Your task to perform on an android device: open app "Adobe Acrobat Reader" (install if not already installed) Image 0: 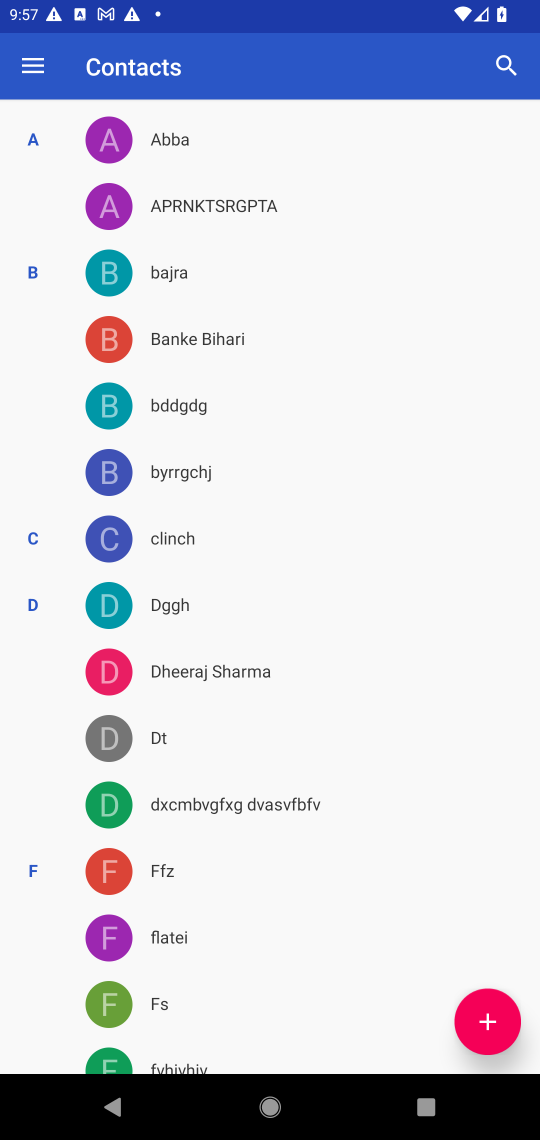
Step 0: press home button
Your task to perform on an android device: open app "Adobe Acrobat Reader" (install if not already installed) Image 1: 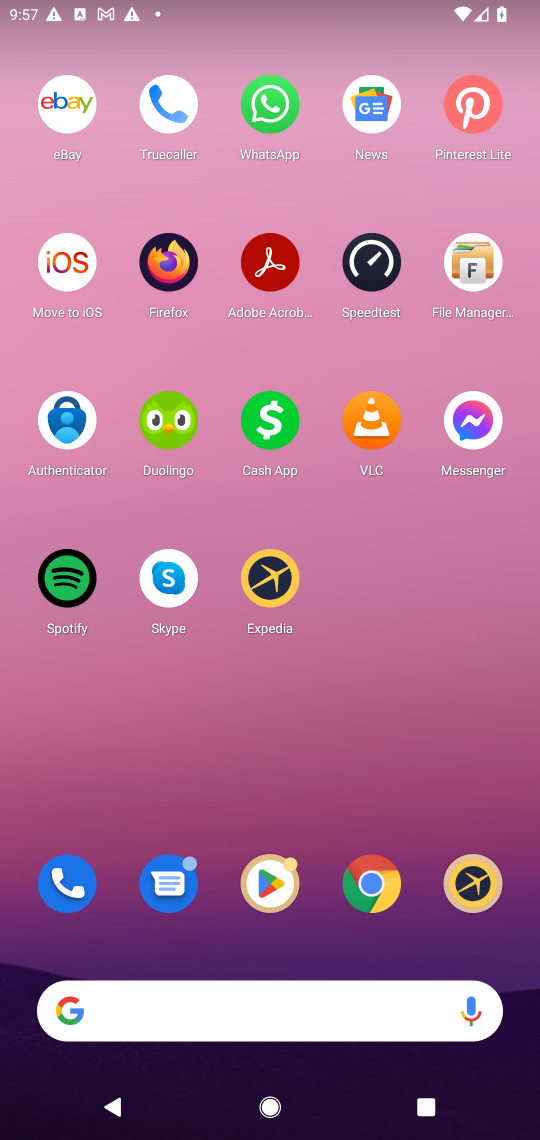
Step 1: click (258, 876)
Your task to perform on an android device: open app "Adobe Acrobat Reader" (install if not already installed) Image 2: 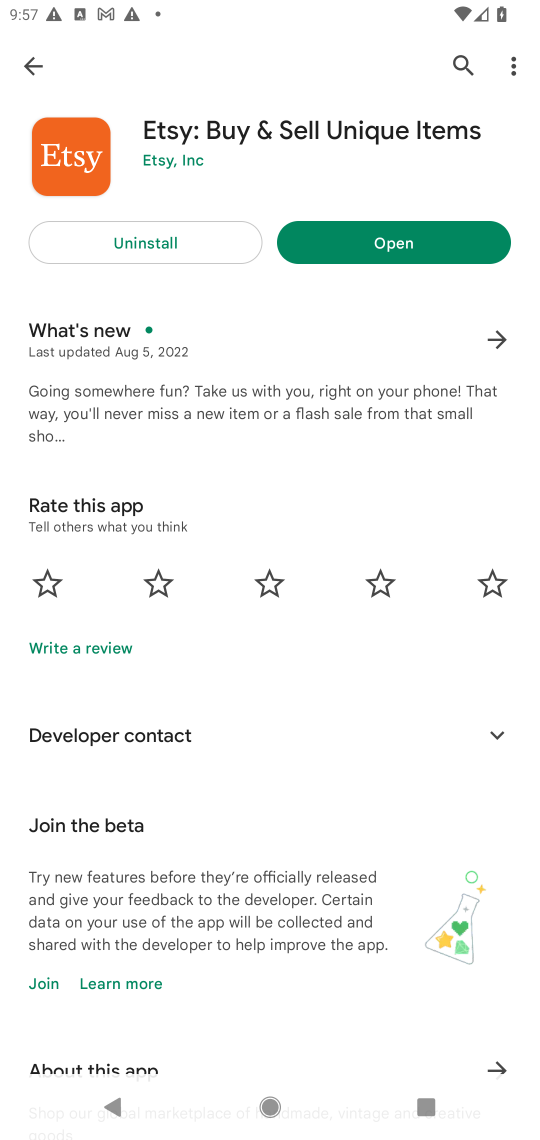
Step 2: click (461, 57)
Your task to perform on an android device: open app "Adobe Acrobat Reader" (install if not already installed) Image 3: 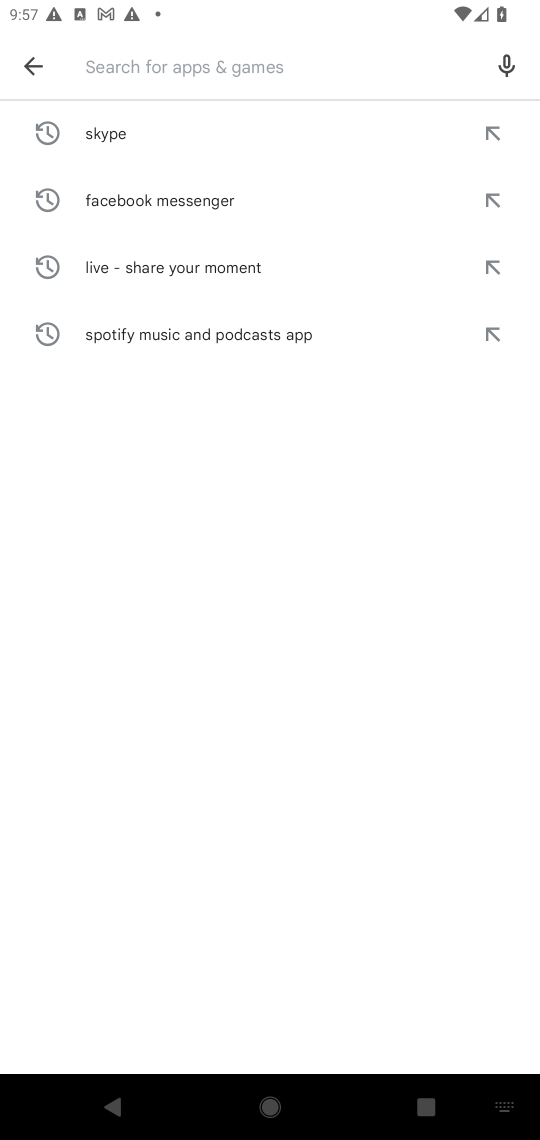
Step 3: type "Adobe Acrobat Reader"
Your task to perform on an android device: open app "Adobe Acrobat Reader" (install if not already installed) Image 4: 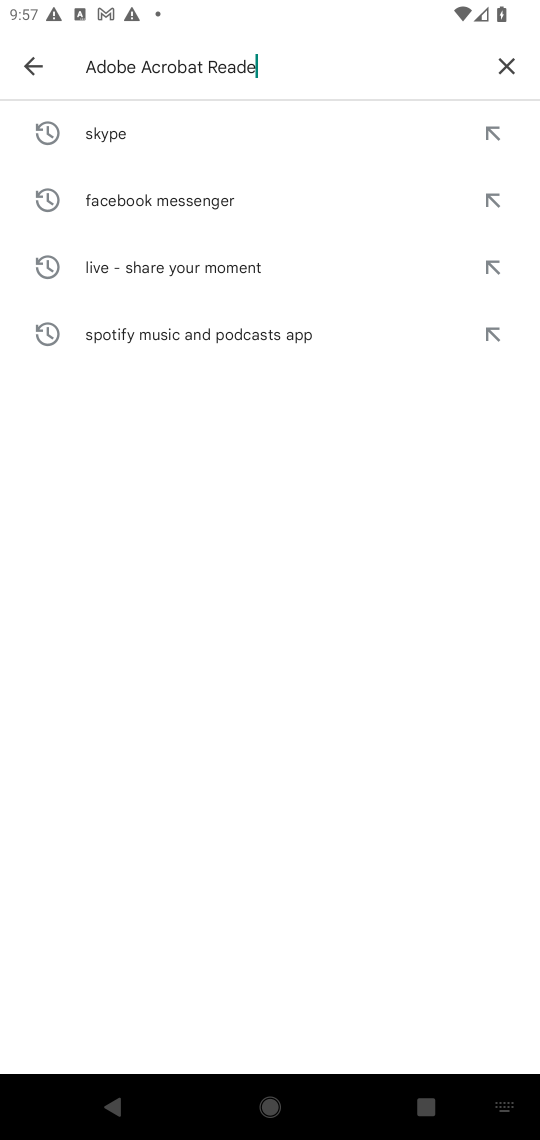
Step 4: type ""
Your task to perform on an android device: open app "Adobe Acrobat Reader" (install if not already installed) Image 5: 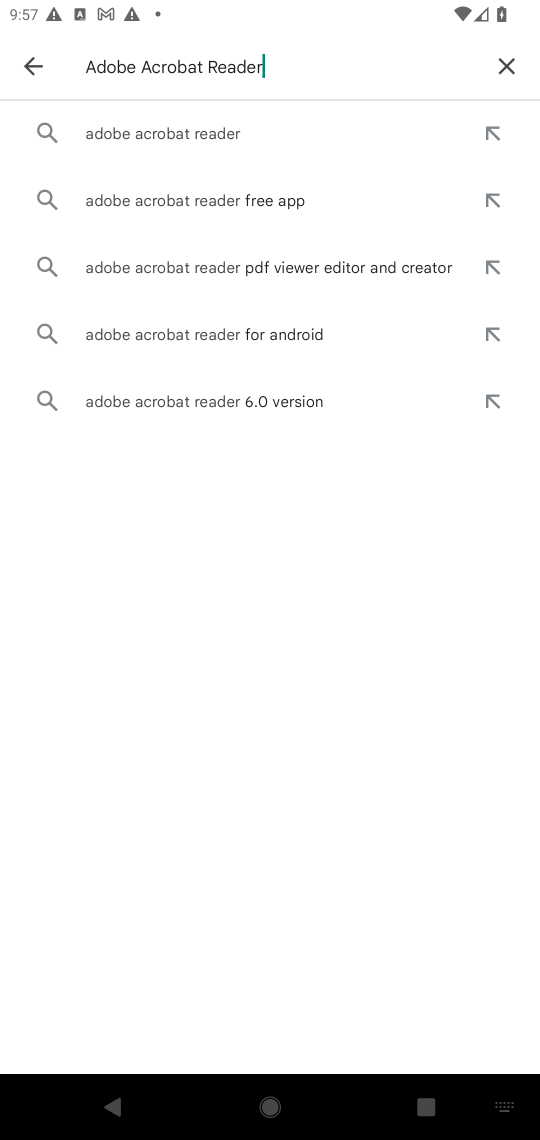
Step 5: click (219, 129)
Your task to perform on an android device: open app "Adobe Acrobat Reader" (install if not already installed) Image 6: 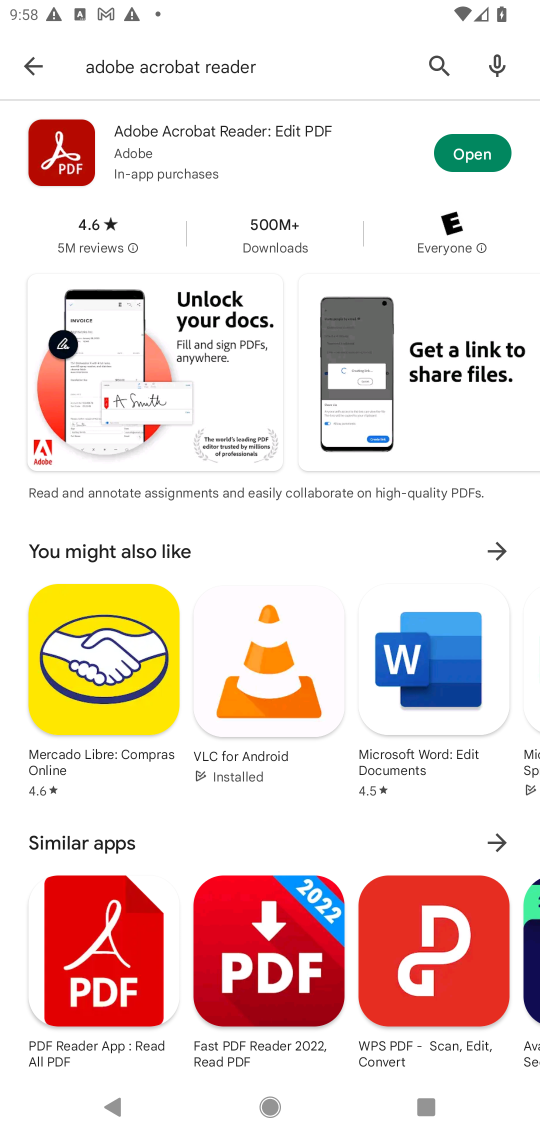
Step 6: click (459, 152)
Your task to perform on an android device: open app "Adobe Acrobat Reader" (install if not already installed) Image 7: 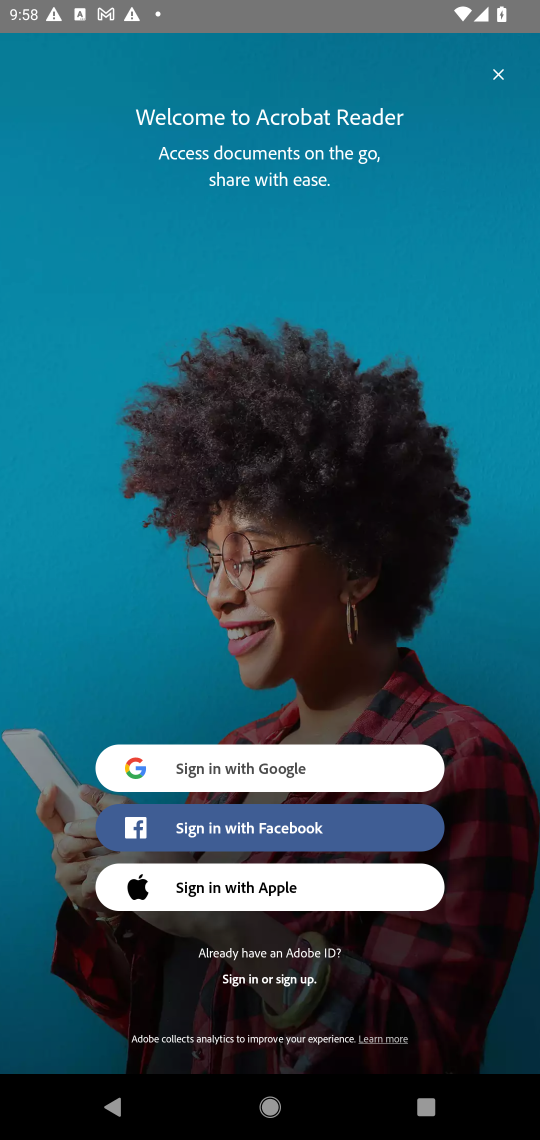
Step 7: task complete